Your task to perform on an android device: Open Google Maps Image 0: 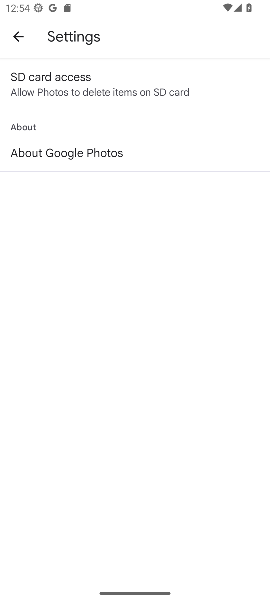
Step 0: press home button
Your task to perform on an android device: Open Google Maps Image 1: 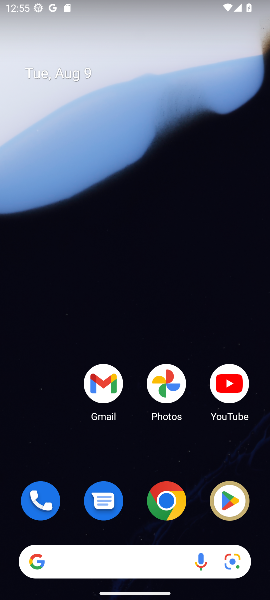
Step 1: drag from (185, 465) to (188, 5)
Your task to perform on an android device: Open Google Maps Image 2: 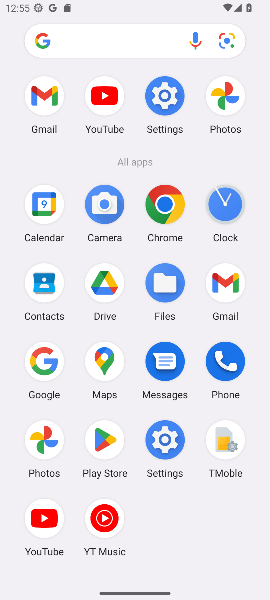
Step 2: click (110, 364)
Your task to perform on an android device: Open Google Maps Image 3: 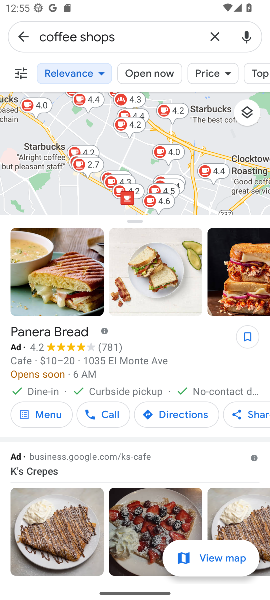
Step 3: task complete